Your task to perform on an android device: Go to eBay Image 0: 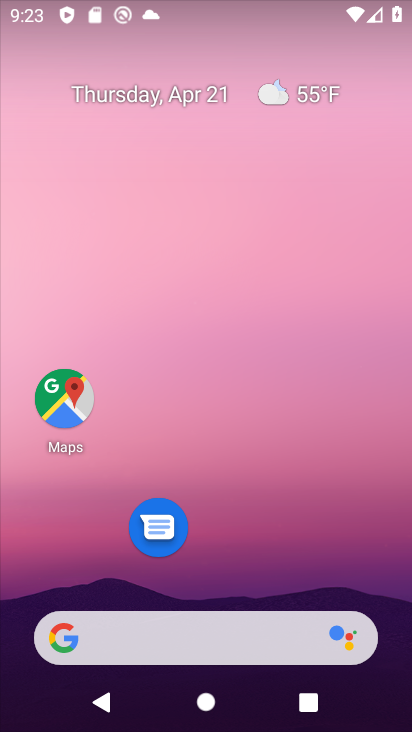
Step 0: click (197, 629)
Your task to perform on an android device: Go to eBay Image 1: 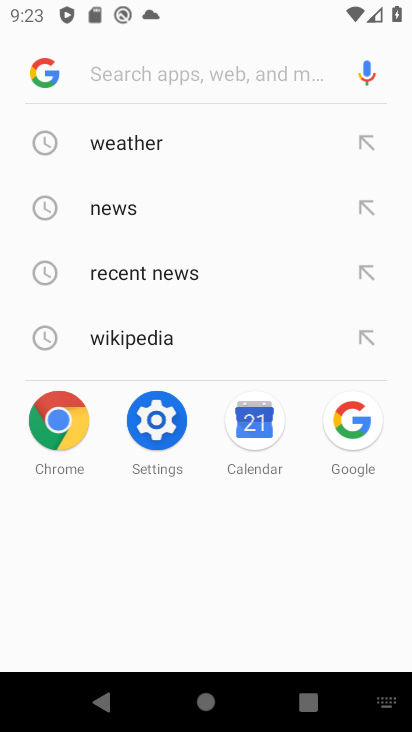
Step 1: type "eBay"
Your task to perform on an android device: Go to eBay Image 2: 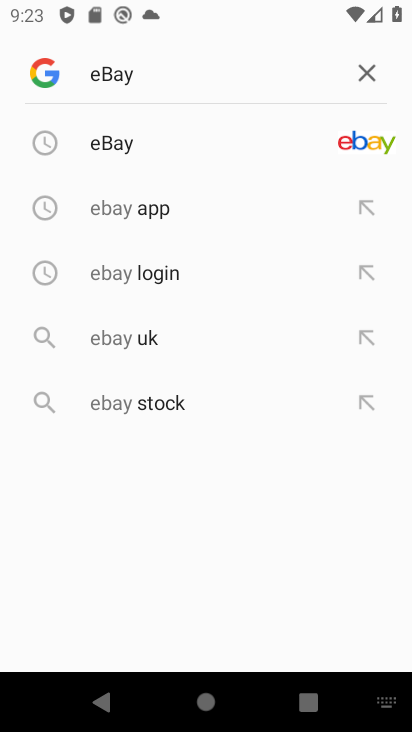
Step 2: click (122, 146)
Your task to perform on an android device: Go to eBay Image 3: 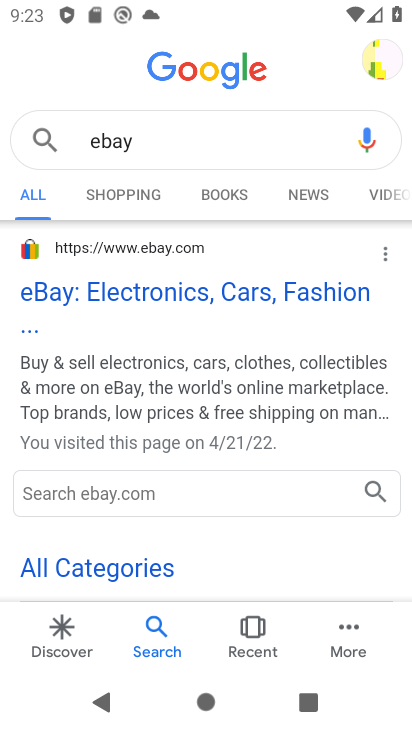
Step 3: click (127, 299)
Your task to perform on an android device: Go to eBay Image 4: 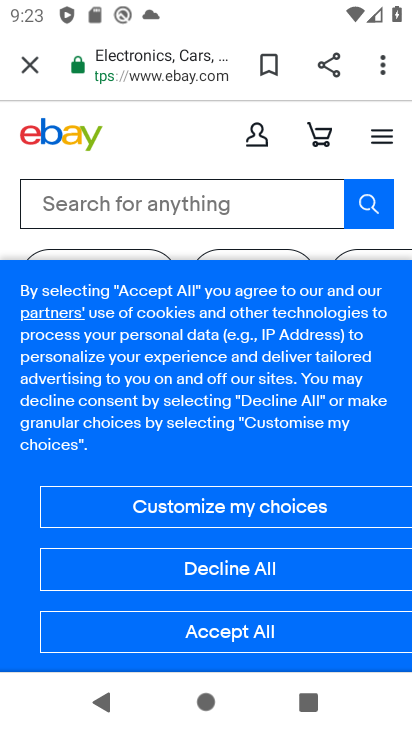
Step 4: task complete